Your task to perform on an android device: Play the new Maroon 5 video on YouTube Image 0: 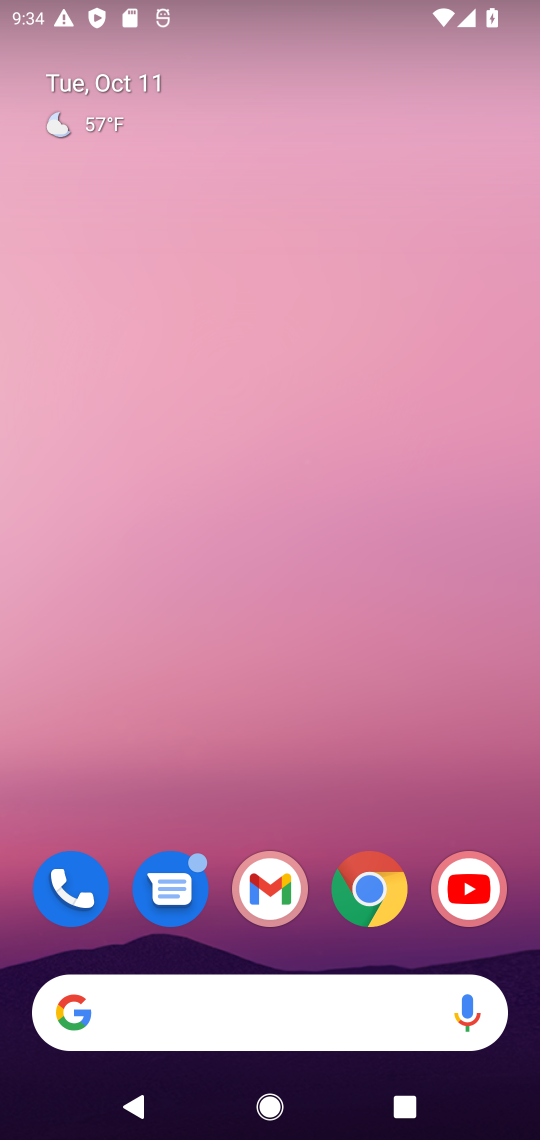
Step 0: click (469, 896)
Your task to perform on an android device: Play the new Maroon 5 video on YouTube Image 1: 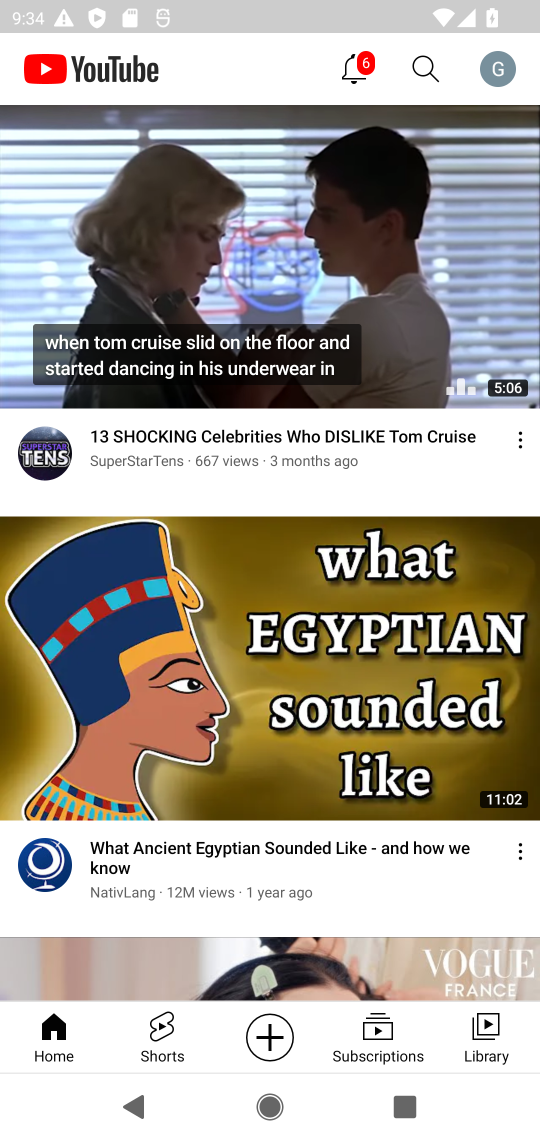
Step 1: click (421, 73)
Your task to perform on an android device: Play the new Maroon 5 video on YouTube Image 2: 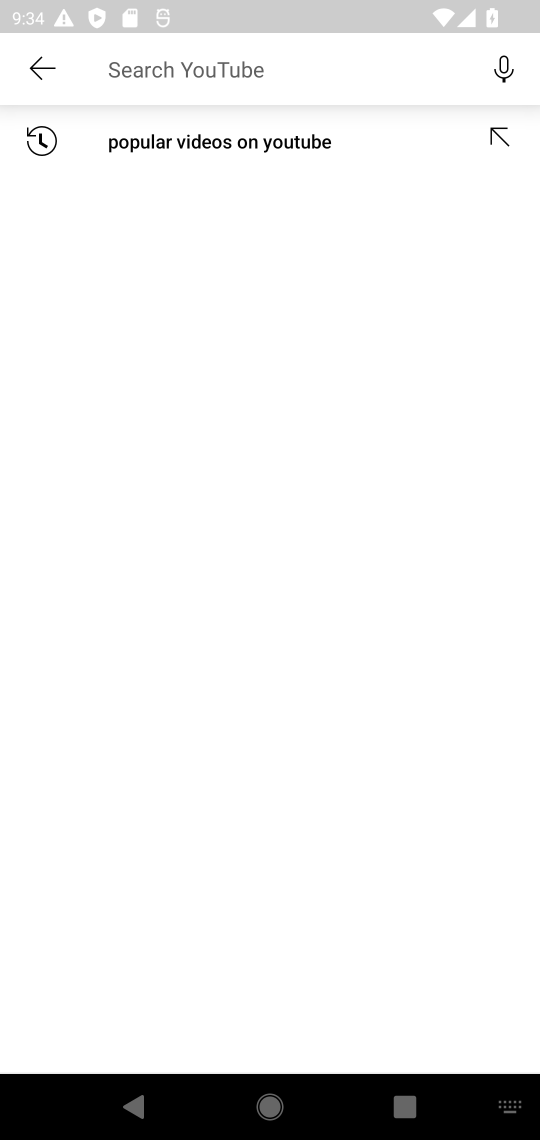
Step 2: type "new maroon 5 video"
Your task to perform on an android device: Play the new Maroon 5 video on YouTube Image 3: 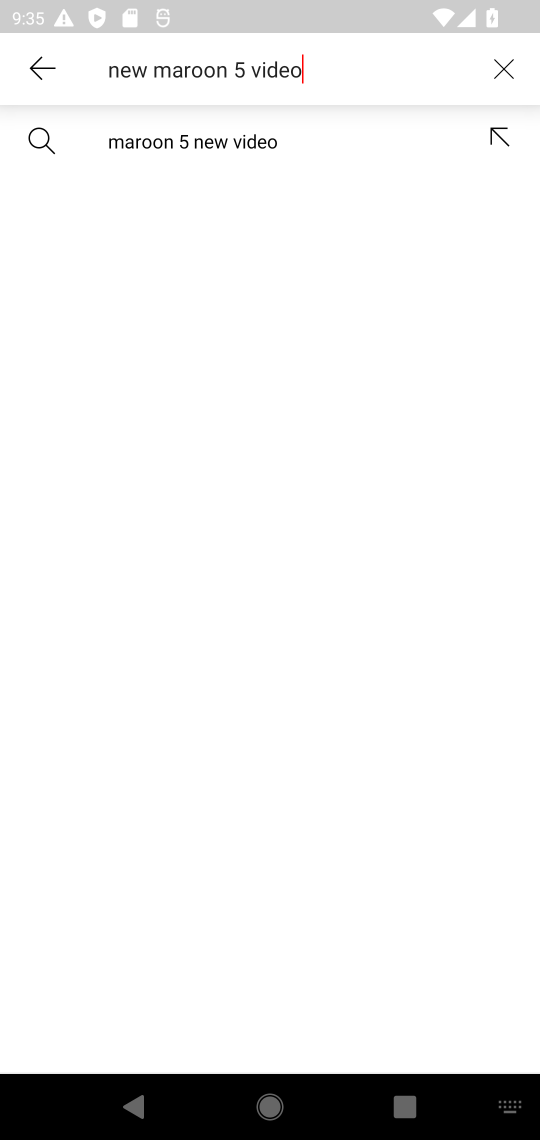
Step 3: click (158, 136)
Your task to perform on an android device: Play the new Maroon 5 video on YouTube Image 4: 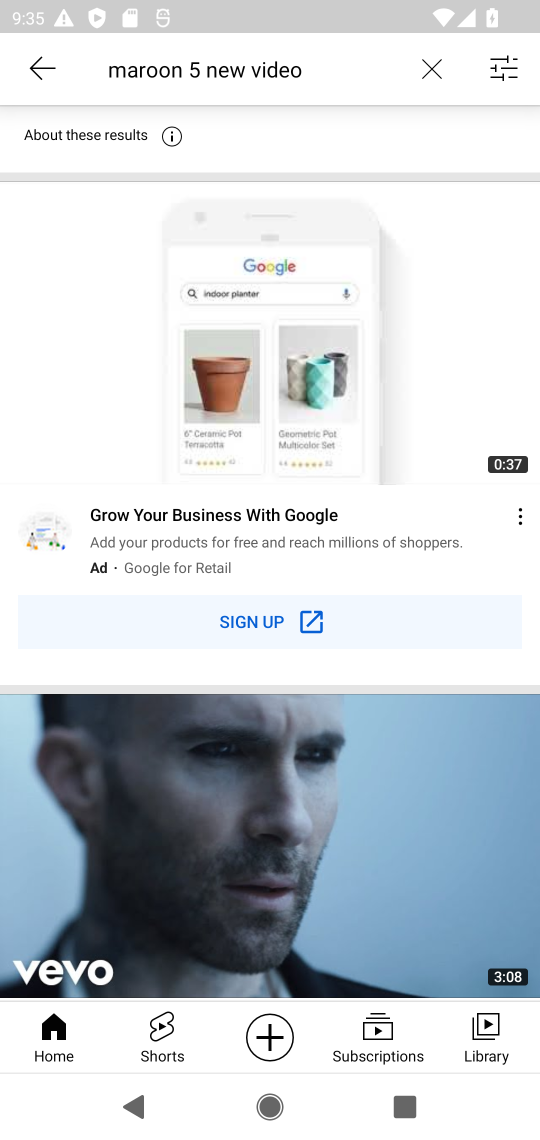
Step 4: click (264, 909)
Your task to perform on an android device: Play the new Maroon 5 video on YouTube Image 5: 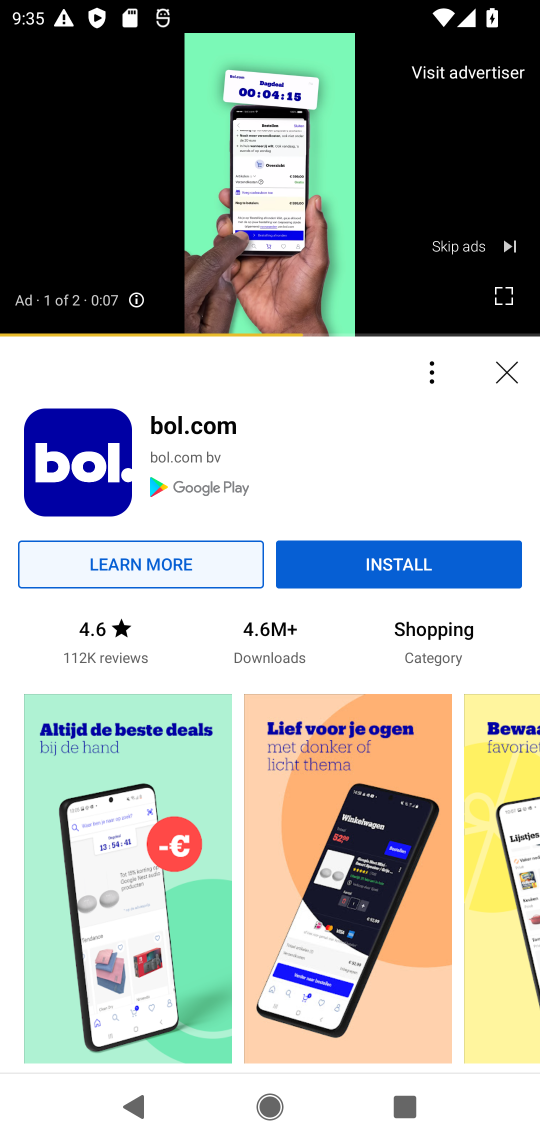
Step 5: click (468, 251)
Your task to perform on an android device: Play the new Maroon 5 video on YouTube Image 6: 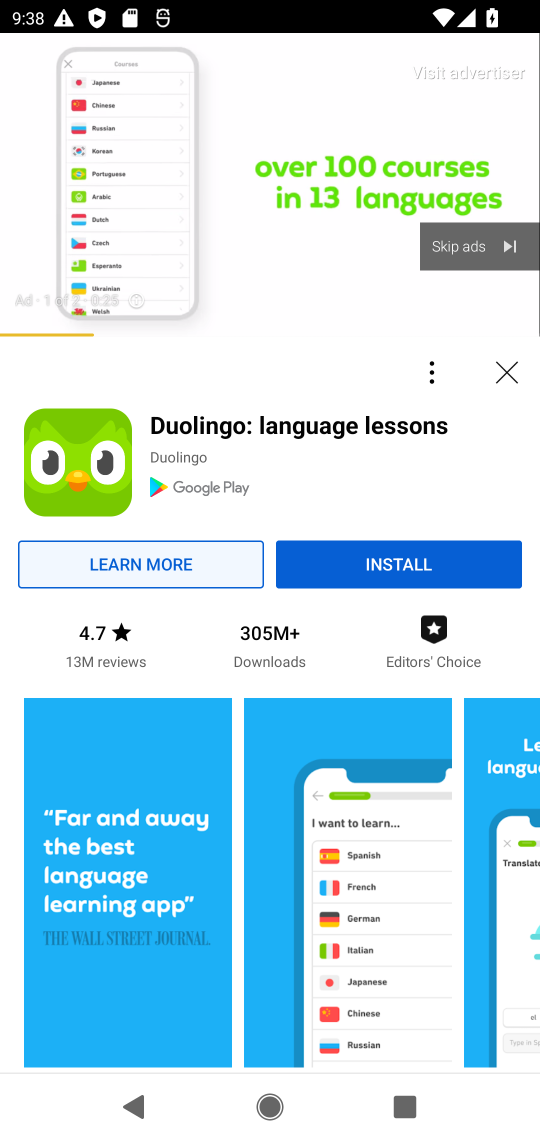
Step 6: click (284, 221)
Your task to perform on an android device: Play the new Maroon 5 video on YouTube Image 7: 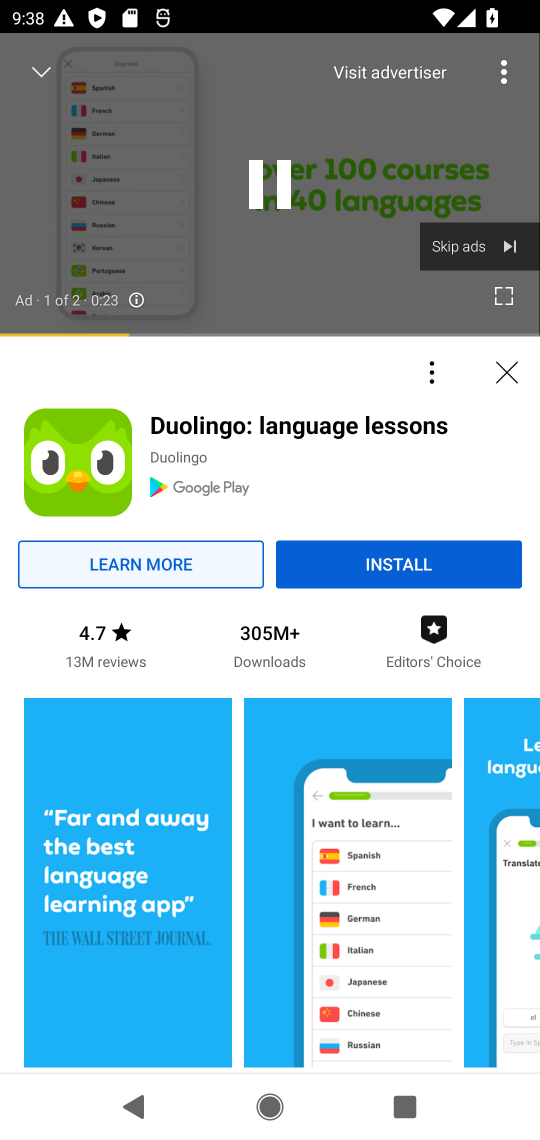
Step 7: click (457, 255)
Your task to perform on an android device: Play the new Maroon 5 video on YouTube Image 8: 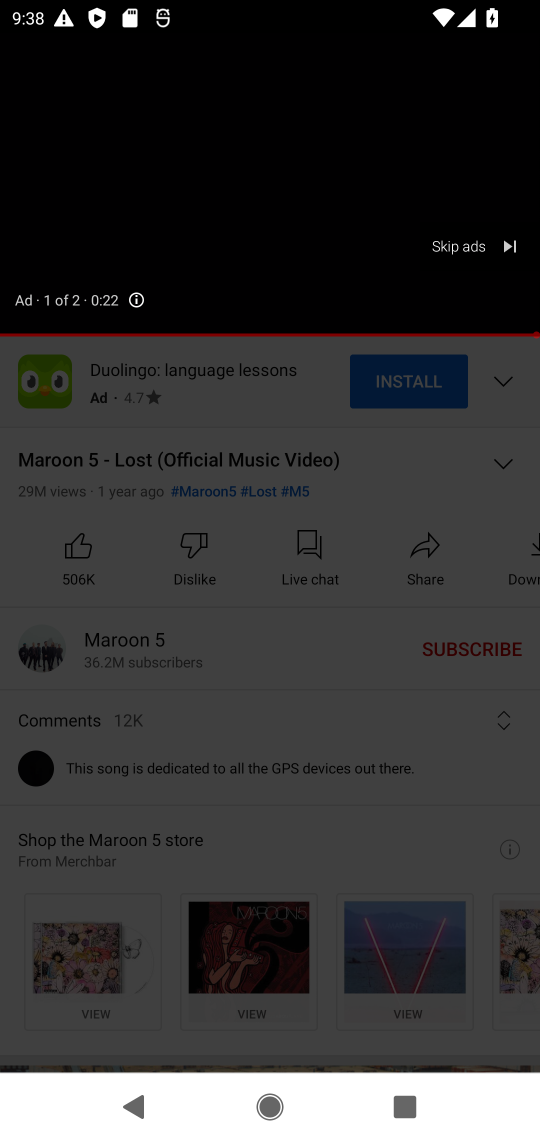
Step 8: click (265, 195)
Your task to perform on an android device: Play the new Maroon 5 video on YouTube Image 9: 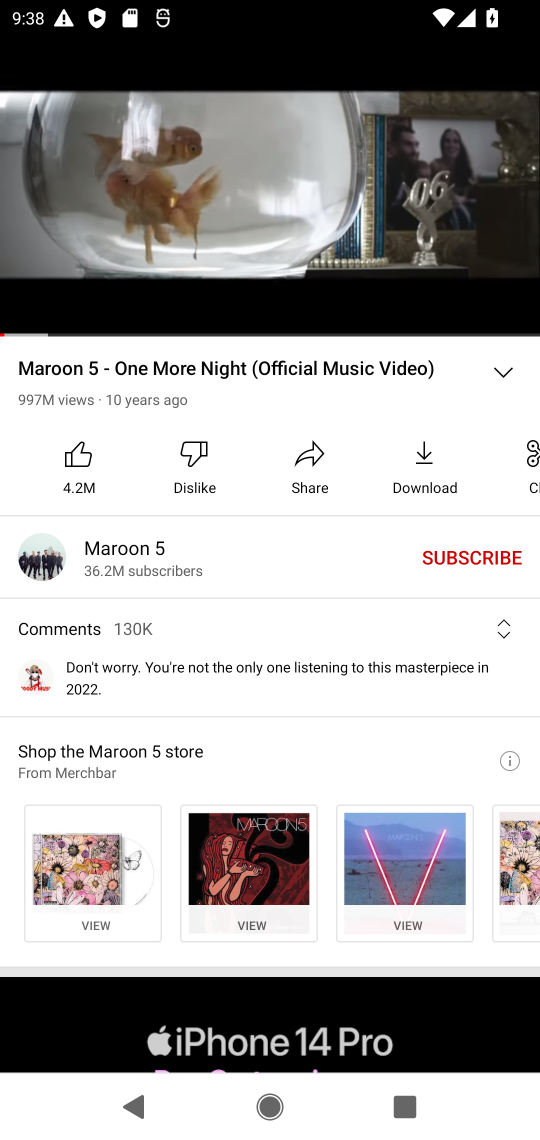
Step 9: click (341, 157)
Your task to perform on an android device: Play the new Maroon 5 video on YouTube Image 10: 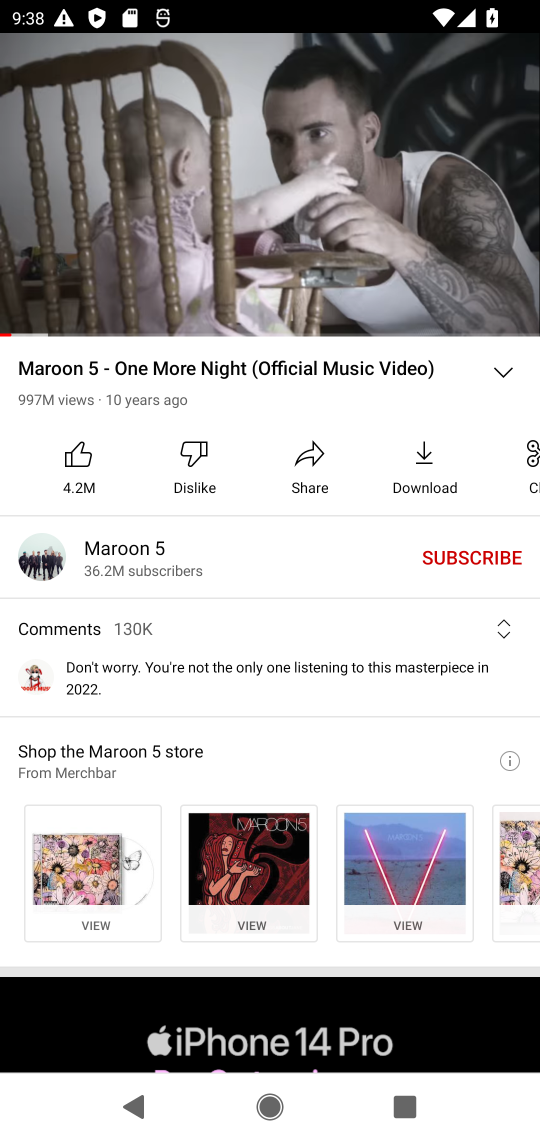
Step 10: click (276, 171)
Your task to perform on an android device: Play the new Maroon 5 video on YouTube Image 11: 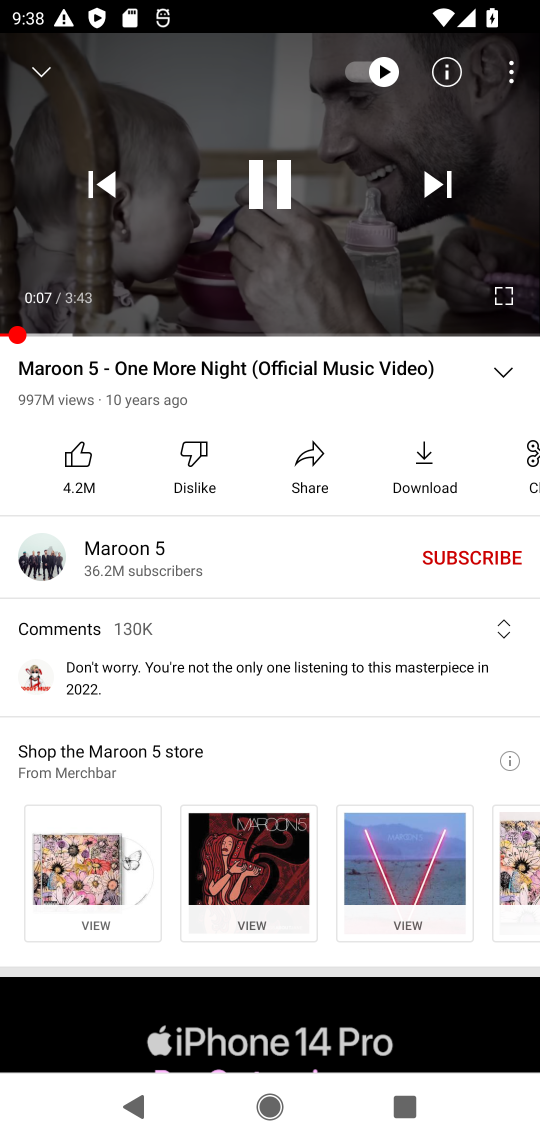
Step 11: task complete